Your task to perform on an android device: turn on location history Image 0: 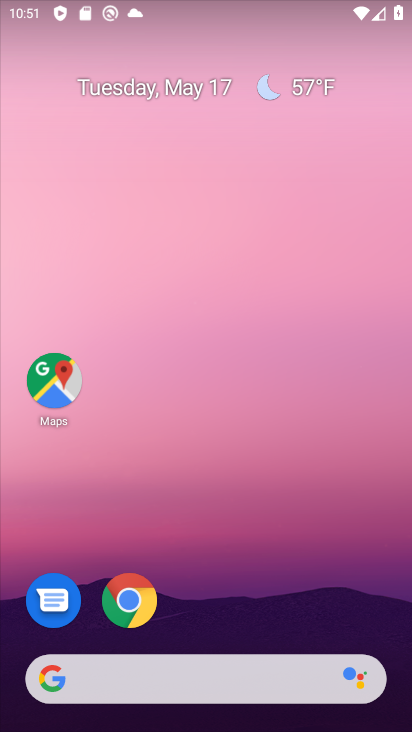
Step 0: drag from (384, 702) to (287, 266)
Your task to perform on an android device: turn on location history Image 1: 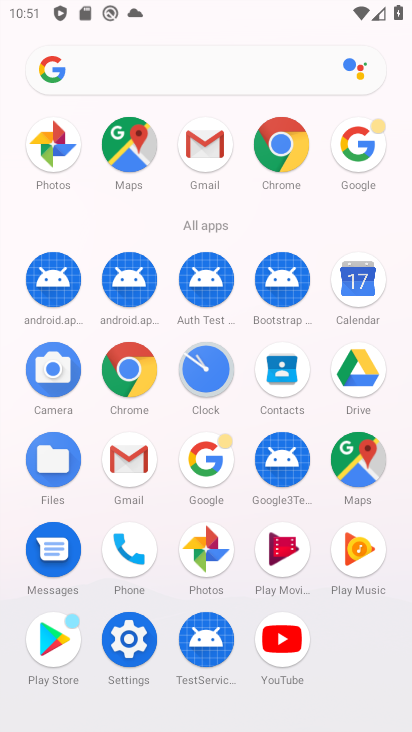
Step 1: click (361, 466)
Your task to perform on an android device: turn on location history Image 2: 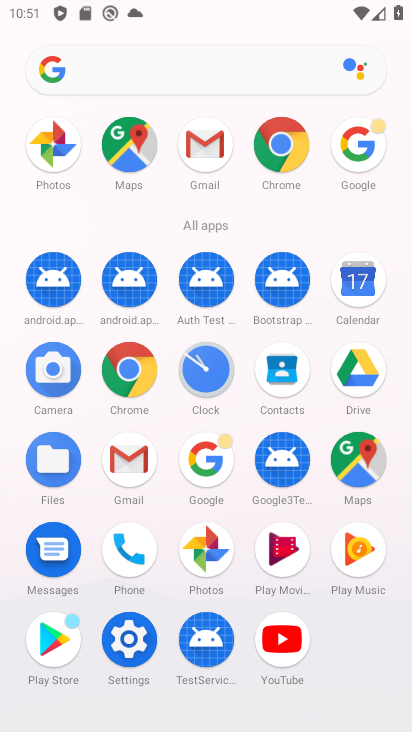
Step 2: click (364, 461)
Your task to perform on an android device: turn on location history Image 3: 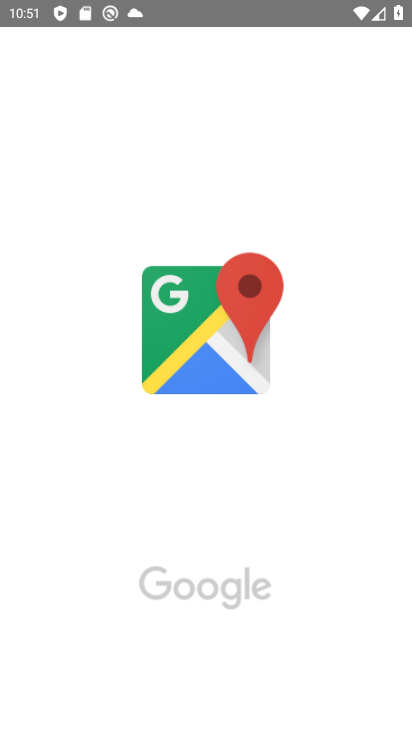
Step 3: click (355, 448)
Your task to perform on an android device: turn on location history Image 4: 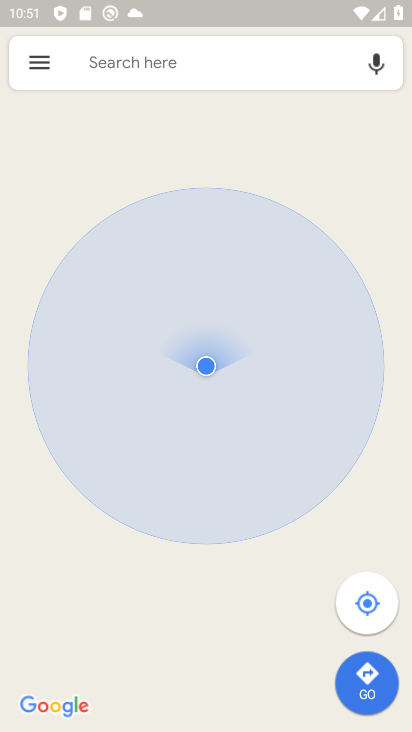
Step 4: click (38, 66)
Your task to perform on an android device: turn on location history Image 5: 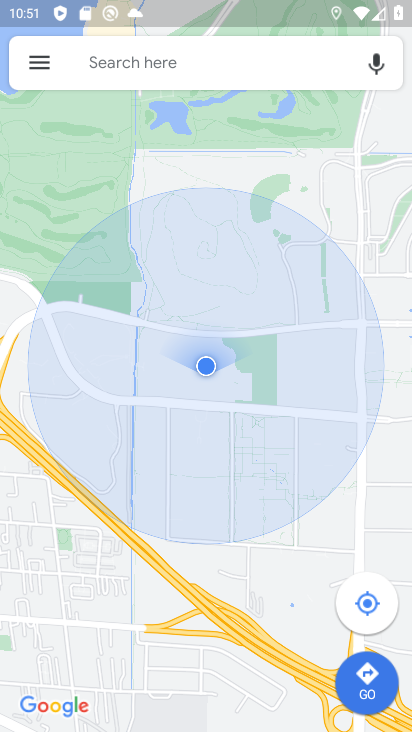
Step 5: click (38, 65)
Your task to perform on an android device: turn on location history Image 6: 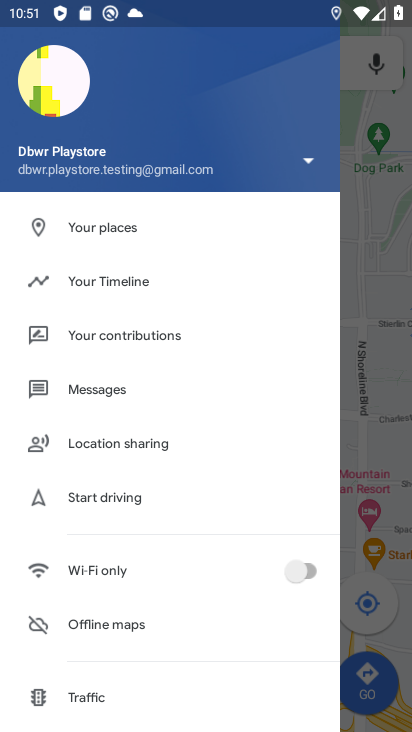
Step 6: click (142, 274)
Your task to perform on an android device: turn on location history Image 7: 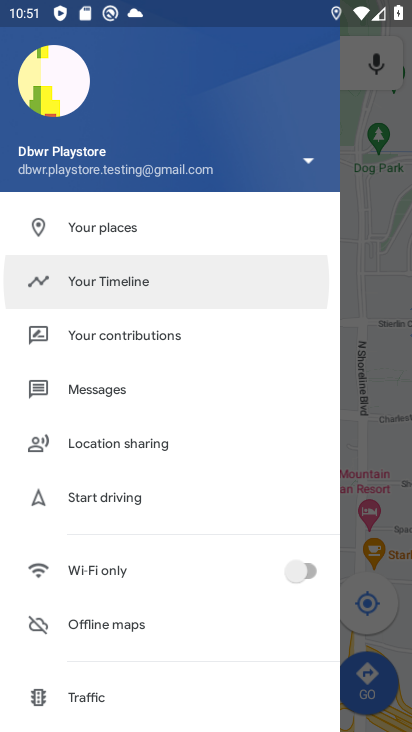
Step 7: click (142, 272)
Your task to perform on an android device: turn on location history Image 8: 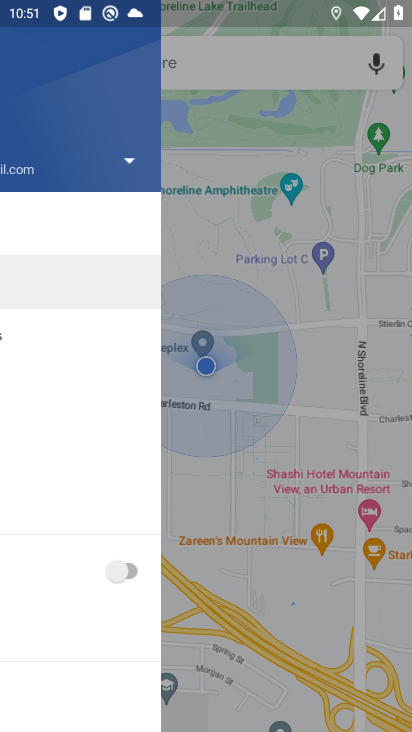
Step 8: click (140, 267)
Your task to perform on an android device: turn on location history Image 9: 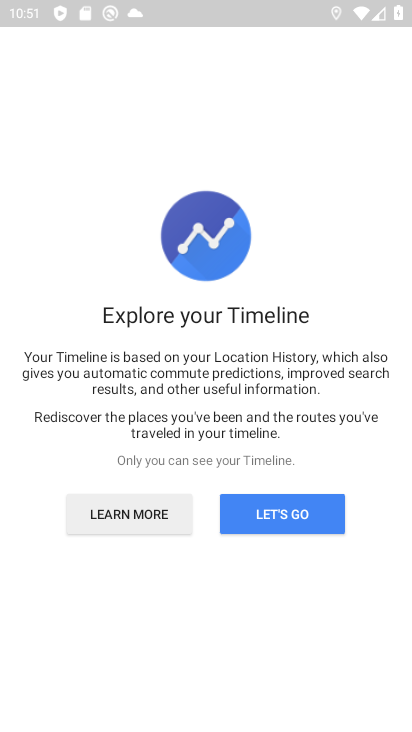
Step 9: click (139, 260)
Your task to perform on an android device: turn on location history Image 10: 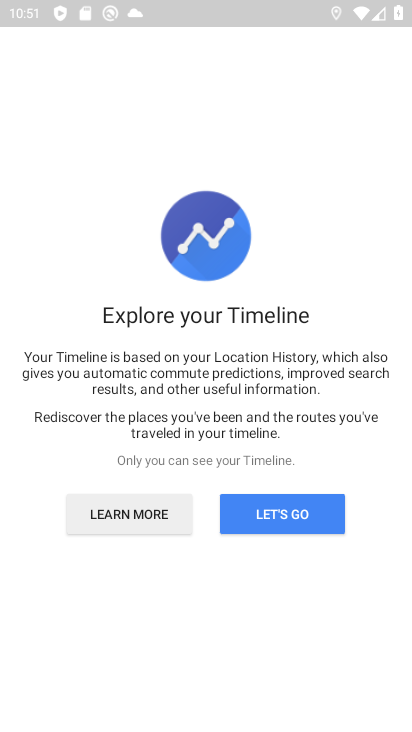
Step 10: click (280, 508)
Your task to perform on an android device: turn on location history Image 11: 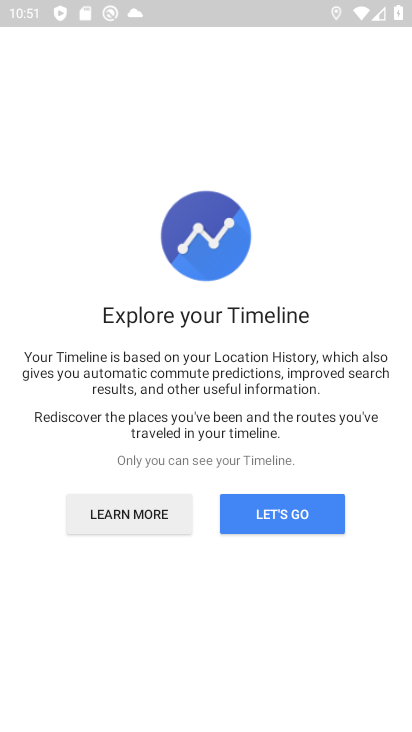
Step 11: click (284, 505)
Your task to perform on an android device: turn on location history Image 12: 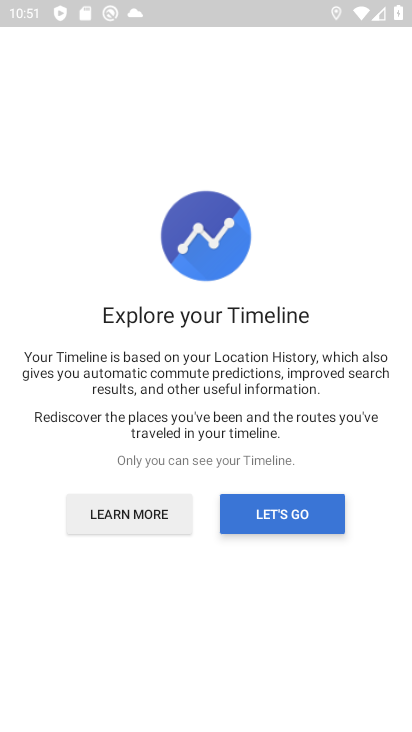
Step 12: click (283, 501)
Your task to perform on an android device: turn on location history Image 13: 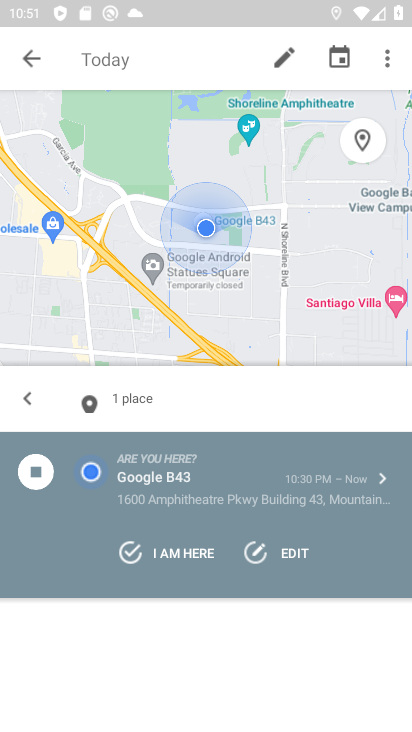
Step 13: click (385, 60)
Your task to perform on an android device: turn on location history Image 14: 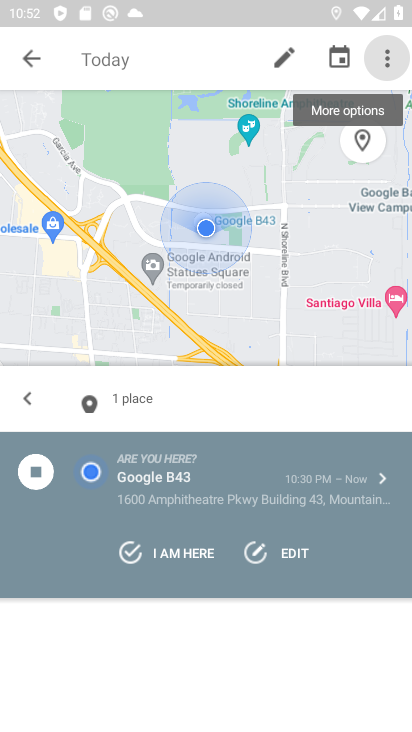
Step 14: click (387, 60)
Your task to perform on an android device: turn on location history Image 15: 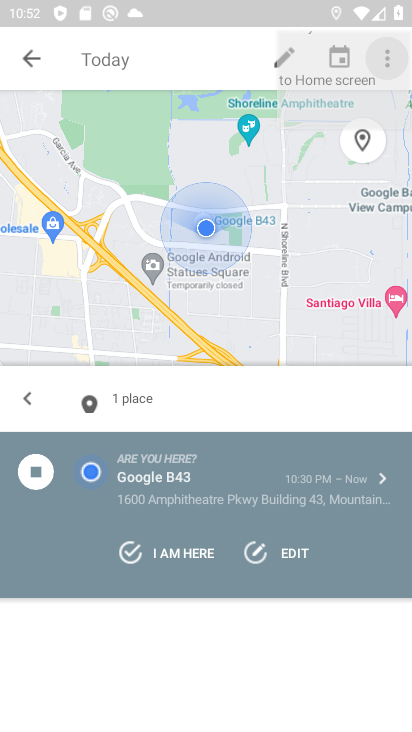
Step 15: click (387, 60)
Your task to perform on an android device: turn on location history Image 16: 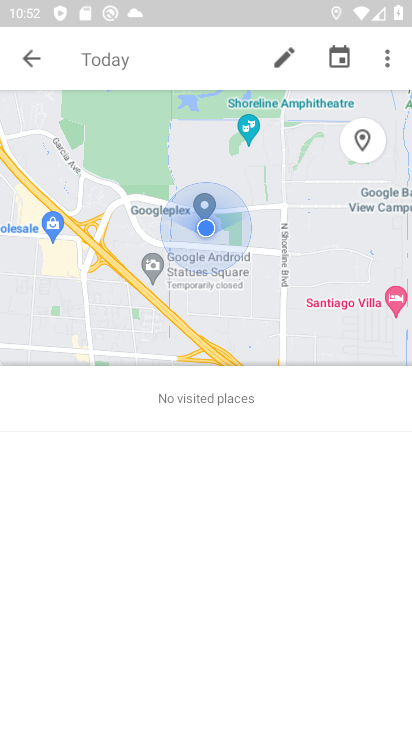
Step 16: click (384, 58)
Your task to perform on an android device: turn on location history Image 17: 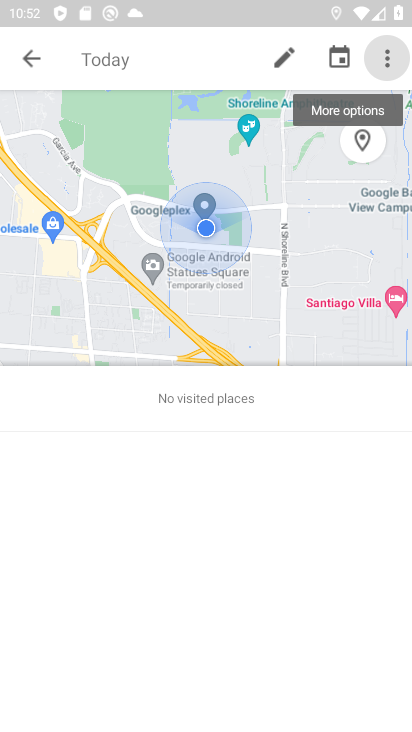
Step 17: click (385, 56)
Your task to perform on an android device: turn on location history Image 18: 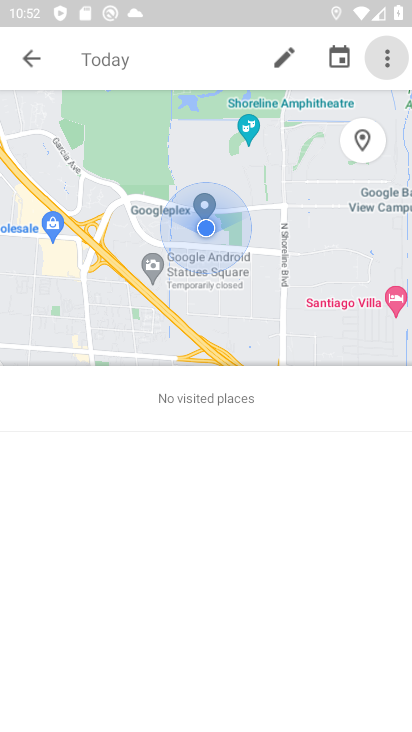
Step 18: click (385, 56)
Your task to perform on an android device: turn on location history Image 19: 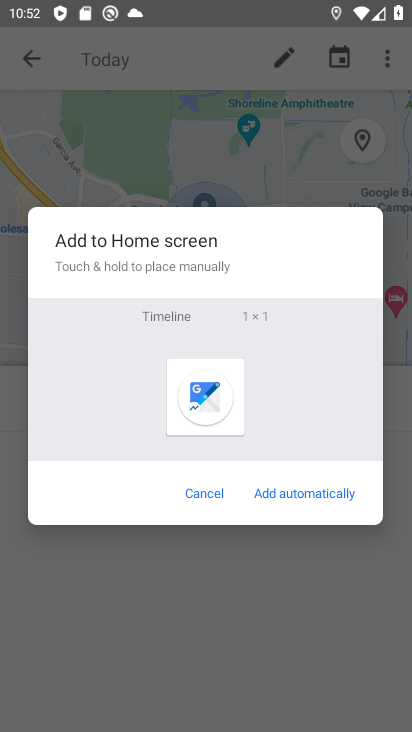
Step 19: click (198, 499)
Your task to perform on an android device: turn on location history Image 20: 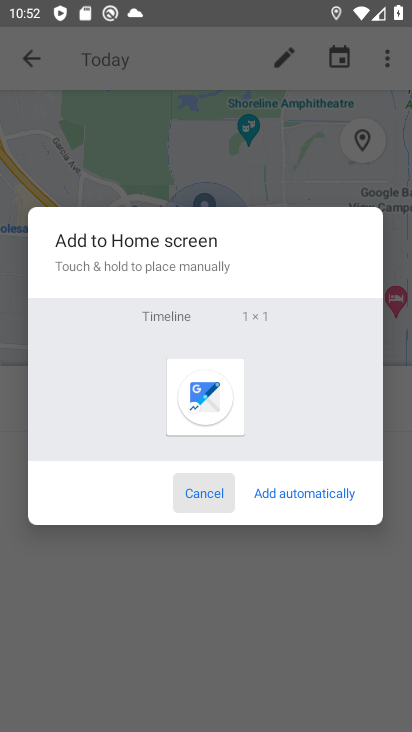
Step 20: click (209, 493)
Your task to perform on an android device: turn on location history Image 21: 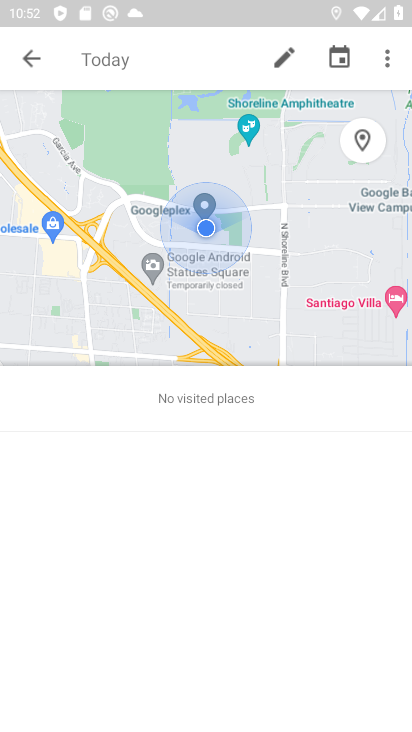
Step 21: click (209, 493)
Your task to perform on an android device: turn on location history Image 22: 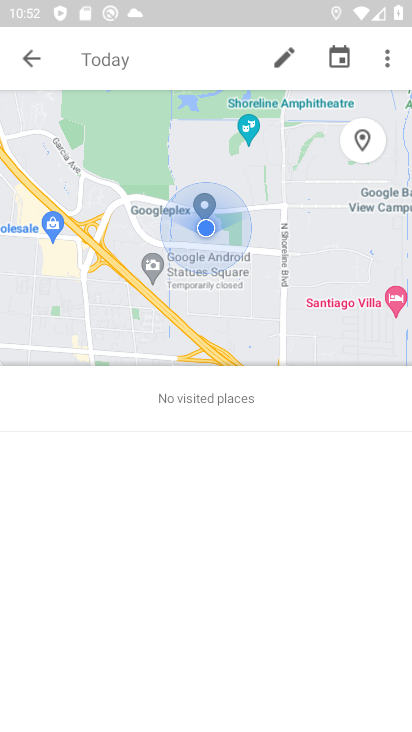
Step 22: click (208, 490)
Your task to perform on an android device: turn on location history Image 23: 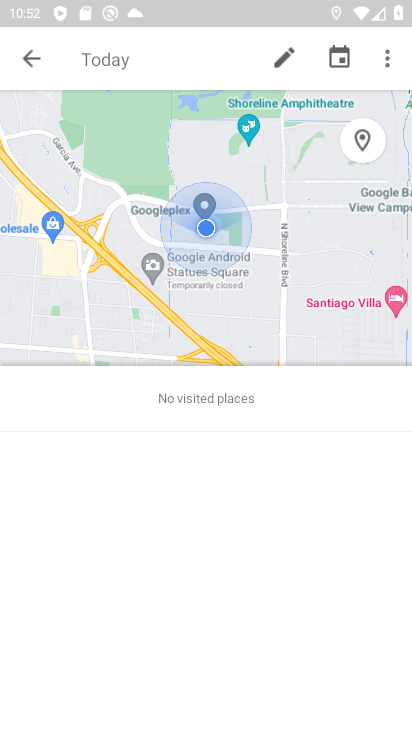
Step 23: drag from (386, 58) to (268, 384)
Your task to perform on an android device: turn on location history Image 24: 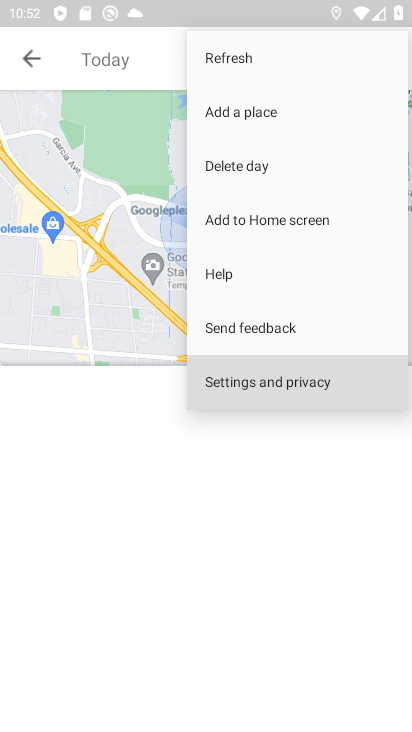
Step 24: click (272, 381)
Your task to perform on an android device: turn on location history Image 25: 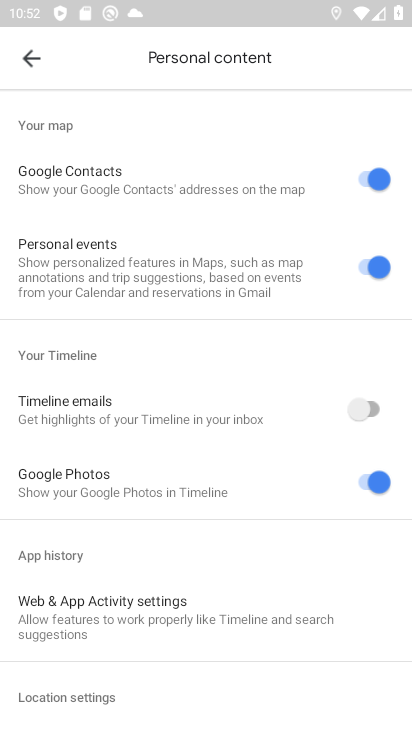
Step 25: drag from (179, 520) to (121, 89)
Your task to perform on an android device: turn on location history Image 26: 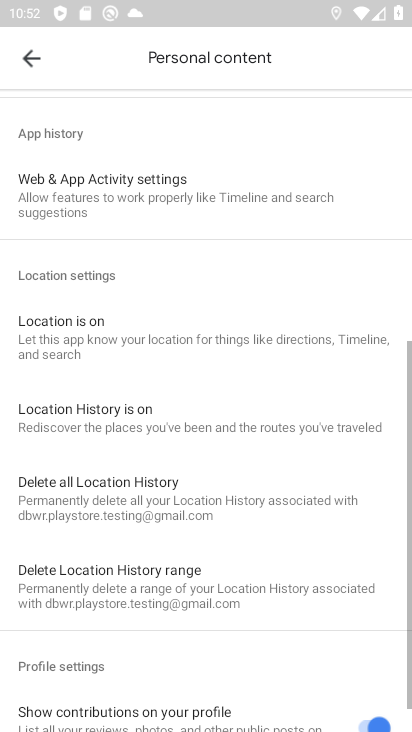
Step 26: drag from (176, 436) to (159, 32)
Your task to perform on an android device: turn on location history Image 27: 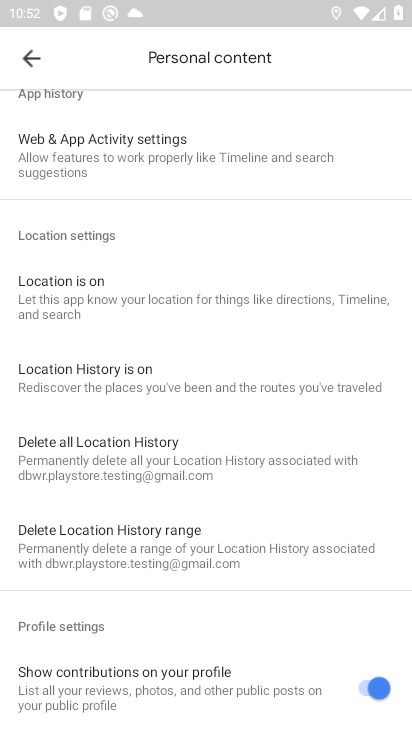
Step 27: click (82, 375)
Your task to perform on an android device: turn on location history Image 28: 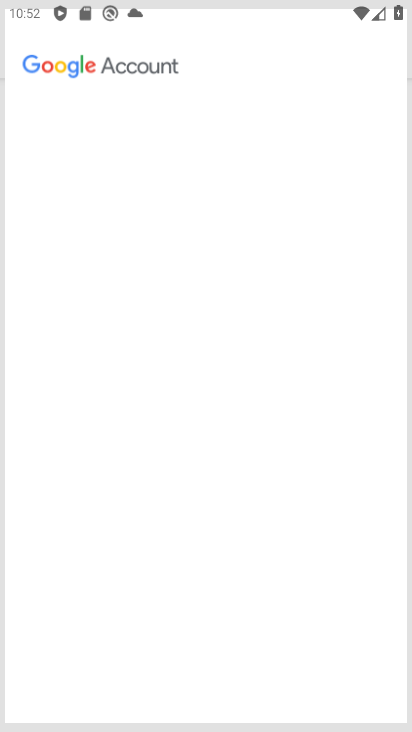
Step 28: task complete